Your task to perform on an android device: Search for pizza restaurants on Maps Image 0: 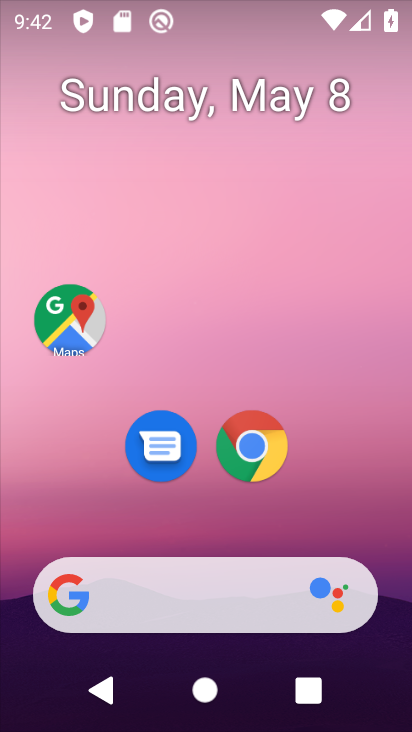
Step 0: click (64, 314)
Your task to perform on an android device: Search for pizza restaurants on Maps Image 1: 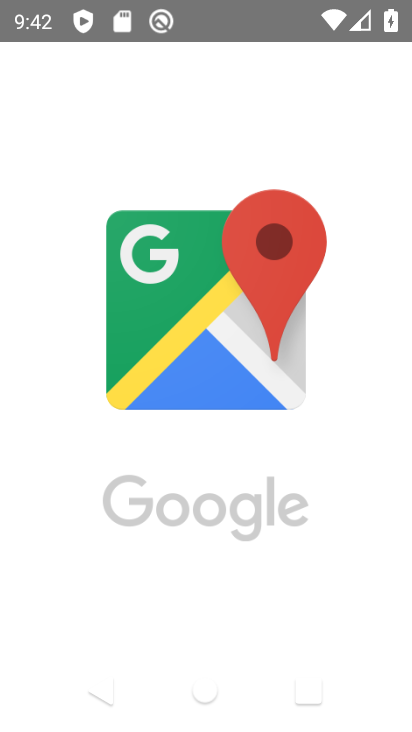
Step 1: task complete